Your task to perform on an android device: find snoozed emails in the gmail app Image 0: 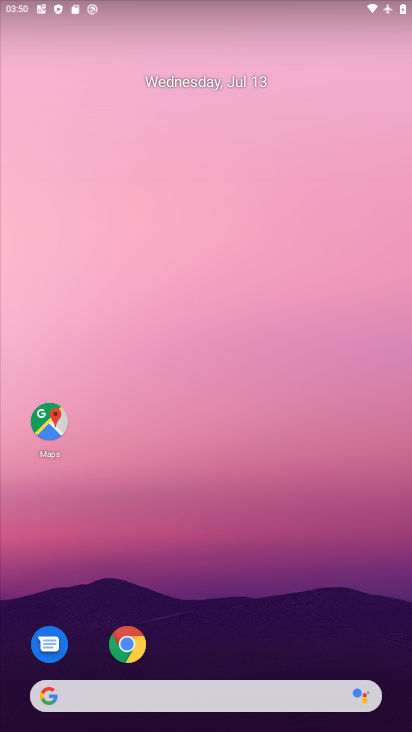
Step 0: drag from (326, 568) to (273, 52)
Your task to perform on an android device: find snoozed emails in the gmail app Image 1: 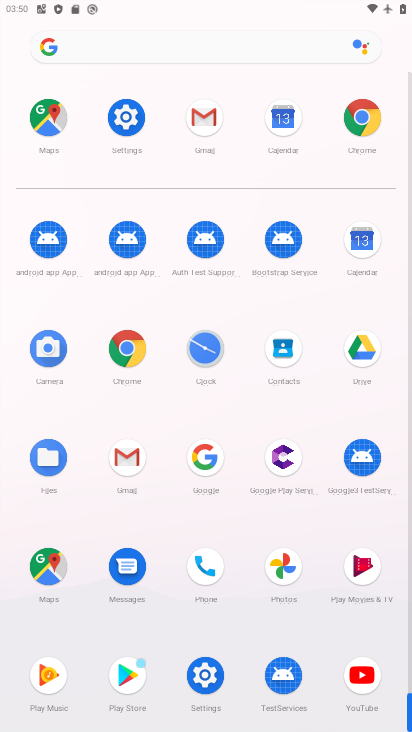
Step 1: click (203, 116)
Your task to perform on an android device: find snoozed emails in the gmail app Image 2: 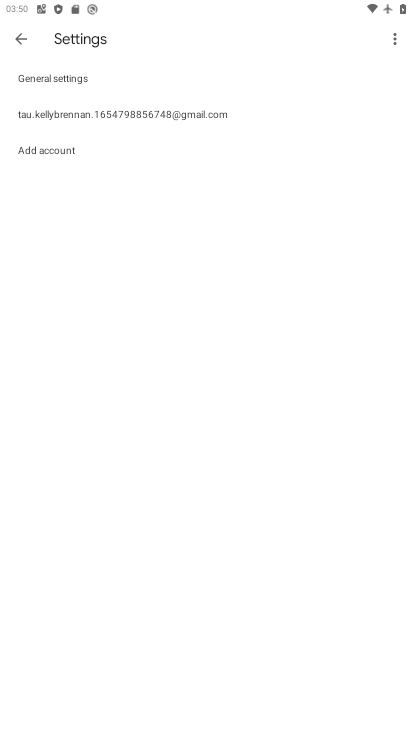
Step 2: click (19, 39)
Your task to perform on an android device: find snoozed emails in the gmail app Image 3: 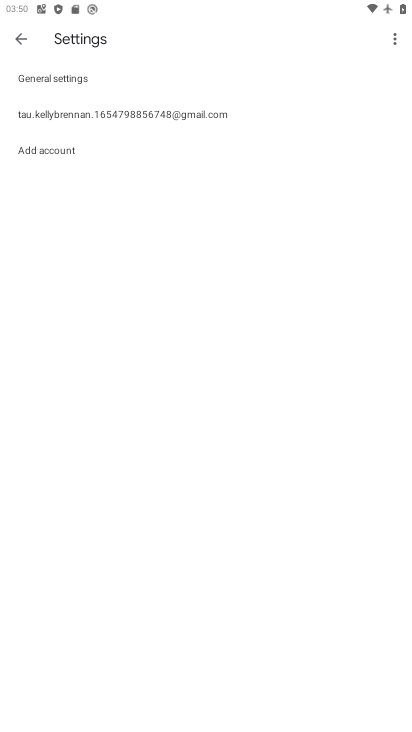
Step 3: click (19, 39)
Your task to perform on an android device: find snoozed emails in the gmail app Image 4: 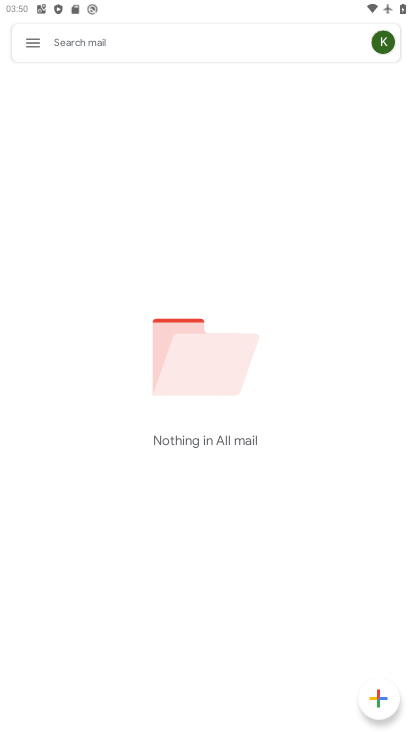
Step 4: click (23, 38)
Your task to perform on an android device: find snoozed emails in the gmail app Image 5: 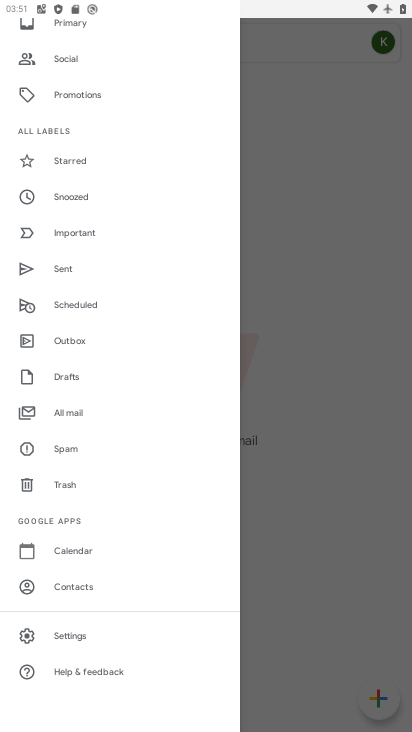
Step 5: click (73, 193)
Your task to perform on an android device: find snoozed emails in the gmail app Image 6: 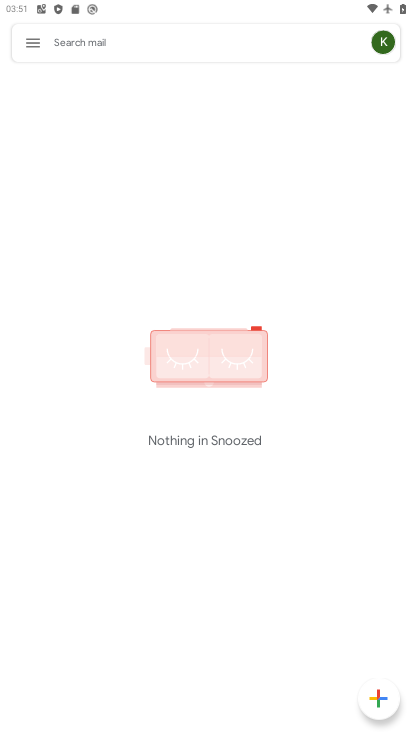
Step 6: task complete